Your task to perform on an android device: turn off smart reply in the gmail app Image 0: 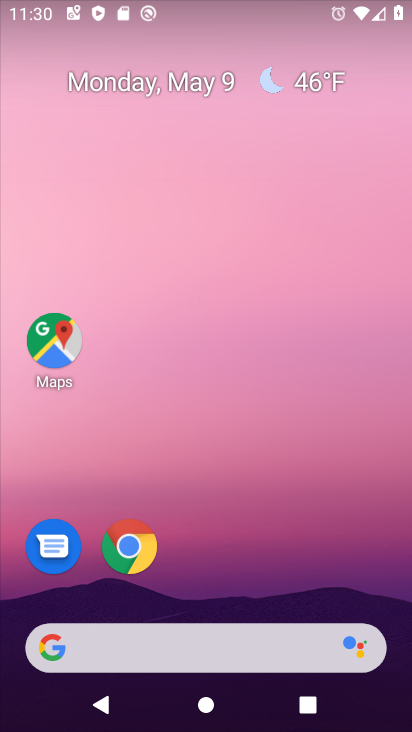
Step 0: drag from (371, 598) to (374, 12)
Your task to perform on an android device: turn off smart reply in the gmail app Image 1: 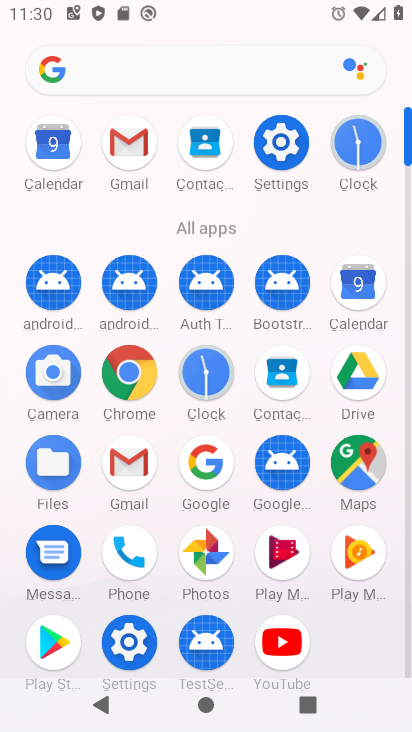
Step 1: click (123, 150)
Your task to perform on an android device: turn off smart reply in the gmail app Image 2: 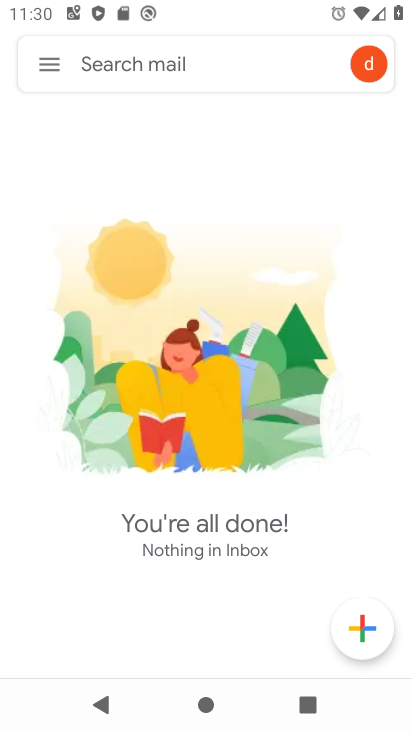
Step 2: click (51, 64)
Your task to perform on an android device: turn off smart reply in the gmail app Image 3: 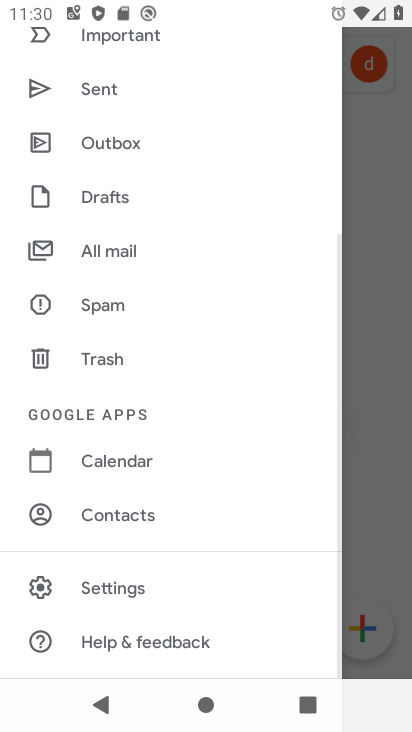
Step 3: click (113, 584)
Your task to perform on an android device: turn off smart reply in the gmail app Image 4: 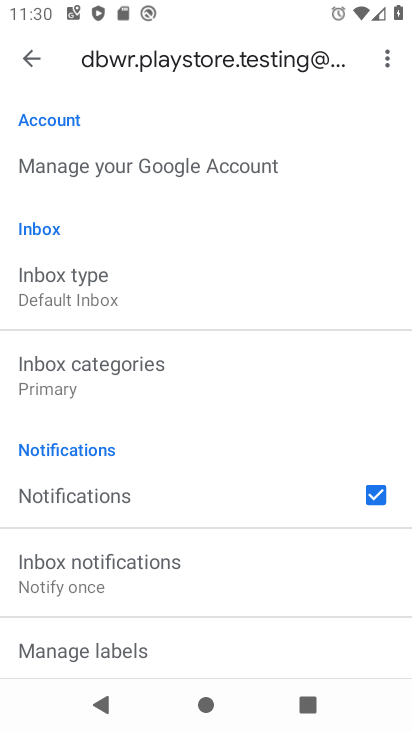
Step 4: drag from (175, 592) to (187, 141)
Your task to perform on an android device: turn off smart reply in the gmail app Image 5: 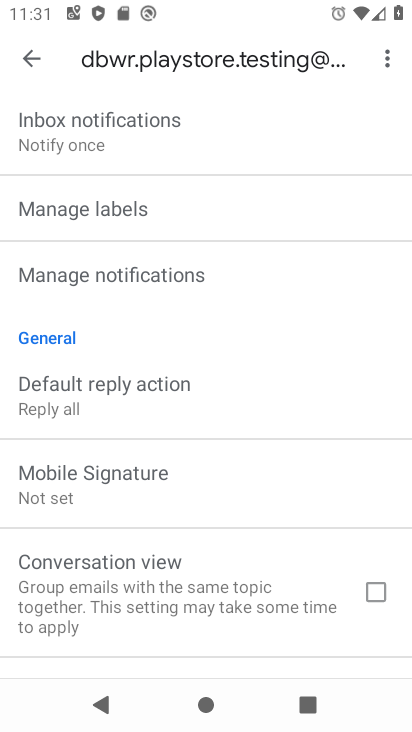
Step 5: drag from (192, 490) to (221, 190)
Your task to perform on an android device: turn off smart reply in the gmail app Image 6: 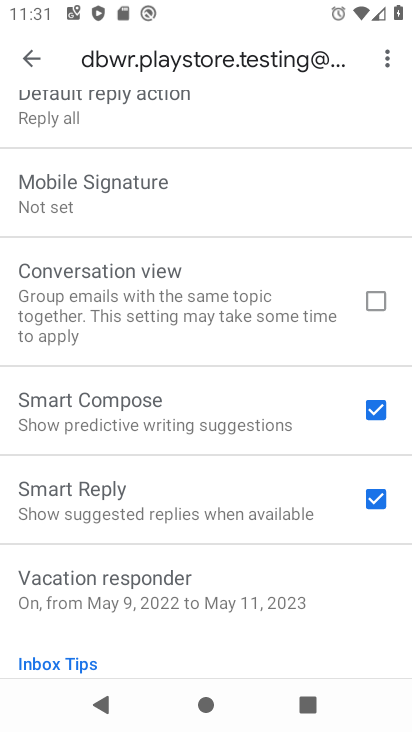
Step 6: drag from (169, 516) to (193, 272)
Your task to perform on an android device: turn off smart reply in the gmail app Image 7: 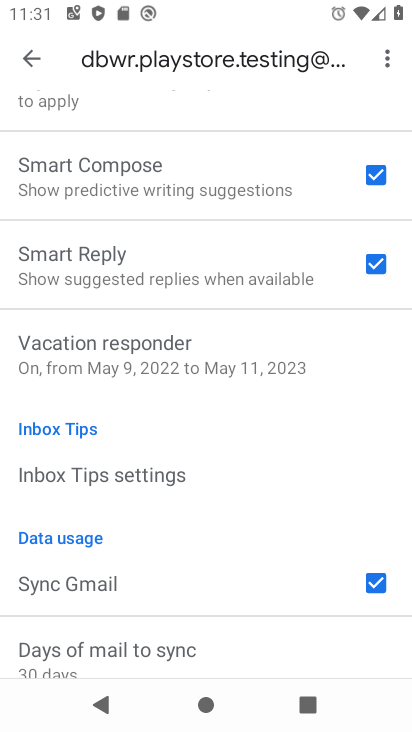
Step 7: click (380, 266)
Your task to perform on an android device: turn off smart reply in the gmail app Image 8: 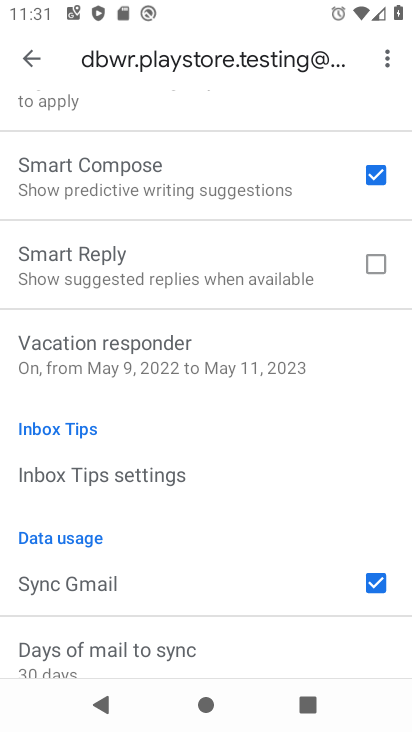
Step 8: task complete